Your task to perform on an android device: Open calendar and show me the fourth week of next month Image 0: 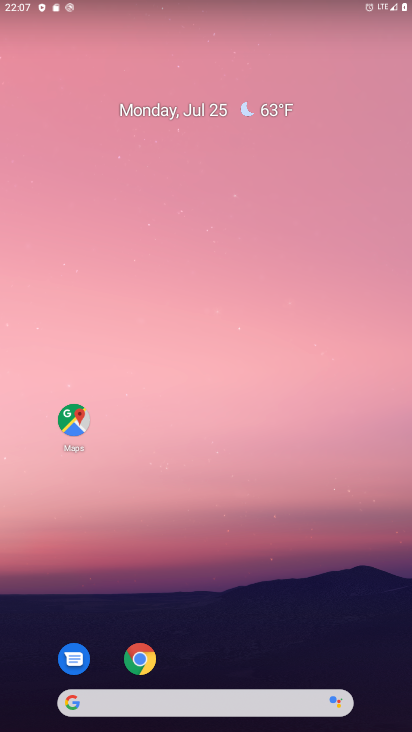
Step 0: drag from (211, 672) to (236, 105)
Your task to perform on an android device: Open calendar and show me the fourth week of next month Image 1: 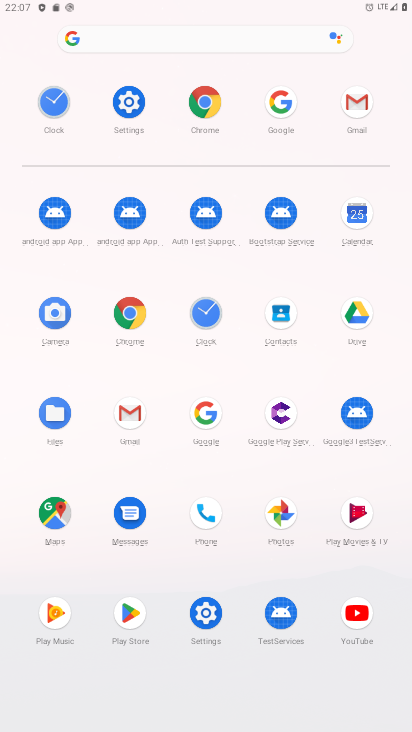
Step 1: click (354, 213)
Your task to perform on an android device: Open calendar and show me the fourth week of next month Image 2: 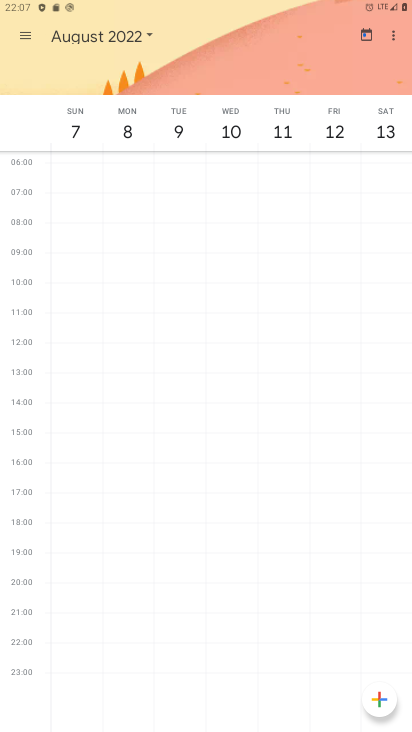
Step 2: click (150, 35)
Your task to perform on an android device: Open calendar and show me the fourth week of next month Image 3: 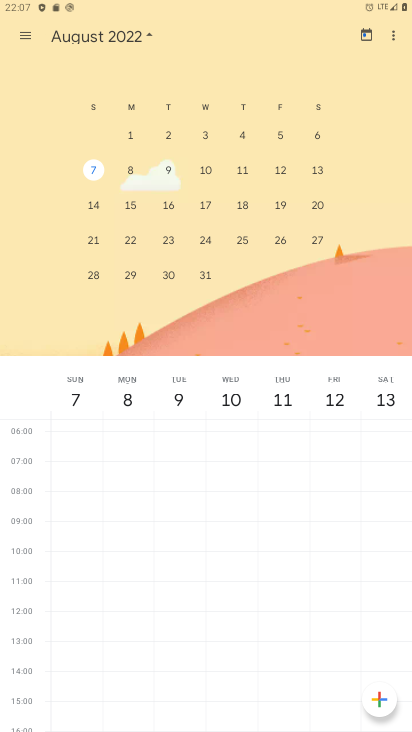
Step 3: click (130, 235)
Your task to perform on an android device: Open calendar and show me the fourth week of next month Image 4: 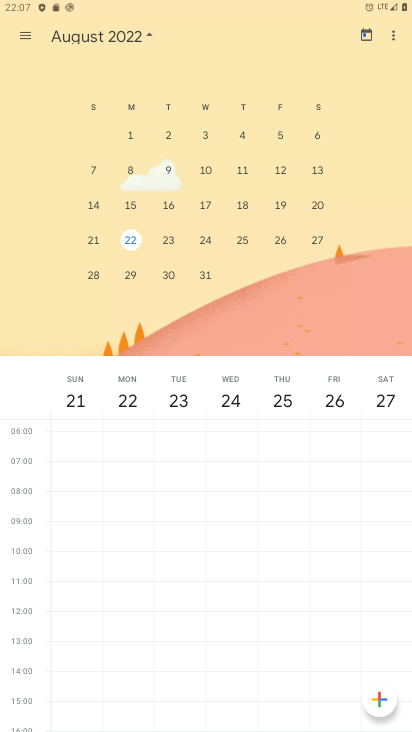
Step 4: click (125, 233)
Your task to perform on an android device: Open calendar and show me the fourth week of next month Image 5: 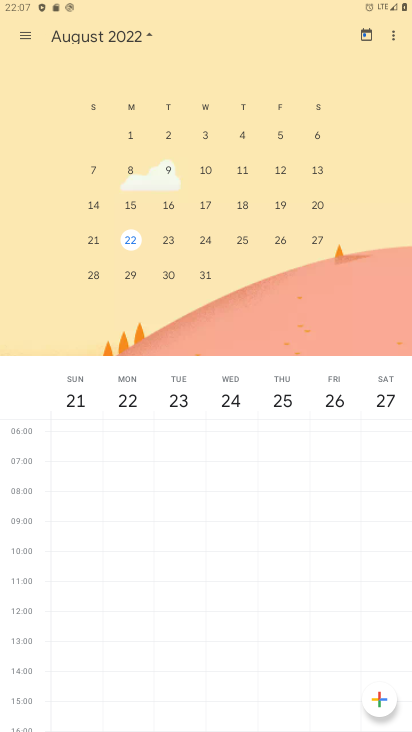
Step 5: click (21, 34)
Your task to perform on an android device: Open calendar and show me the fourth week of next month Image 6: 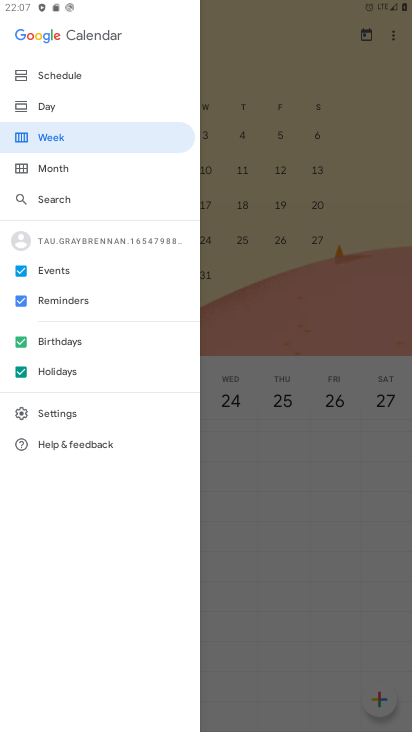
Step 6: click (56, 138)
Your task to perform on an android device: Open calendar and show me the fourth week of next month Image 7: 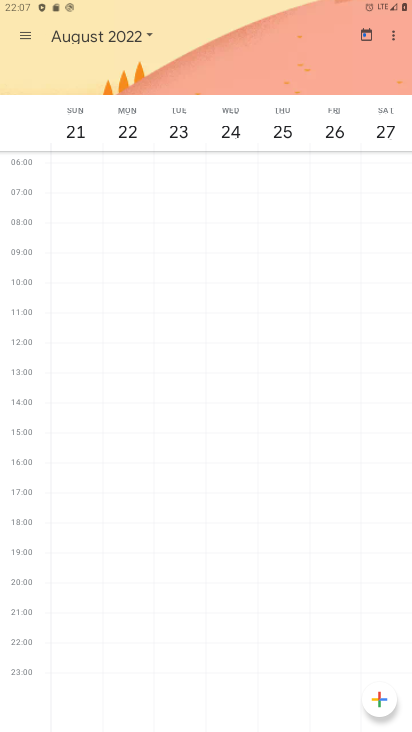
Step 7: task complete